Your task to perform on an android device: toggle notification dots Image 0: 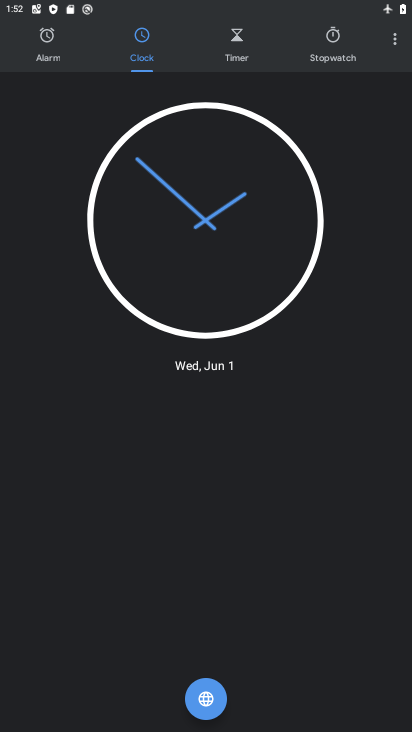
Step 0: press back button
Your task to perform on an android device: toggle notification dots Image 1: 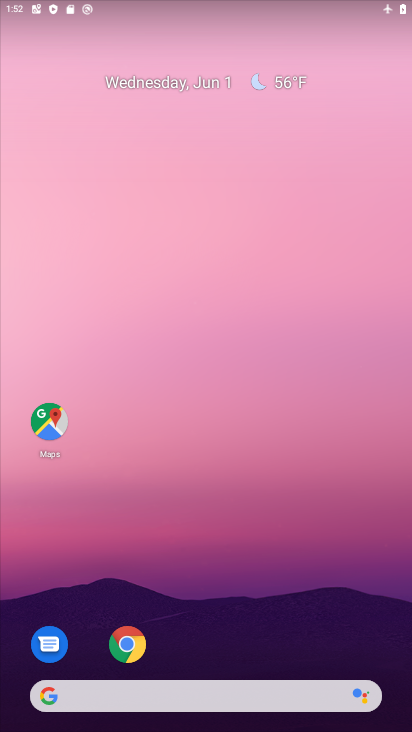
Step 1: drag from (250, 452) to (213, 38)
Your task to perform on an android device: toggle notification dots Image 2: 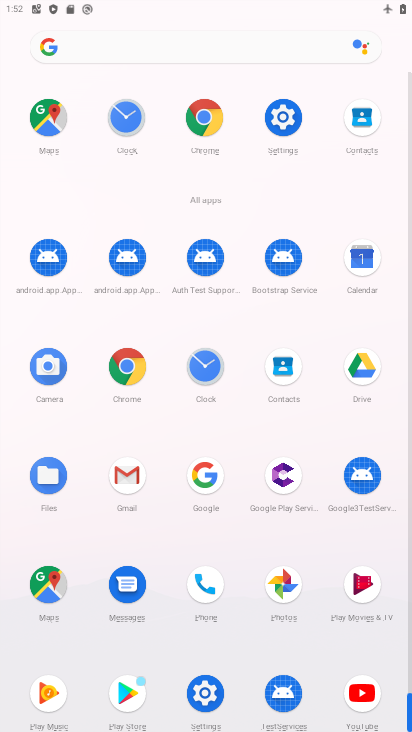
Step 2: drag from (0, 381) to (0, 181)
Your task to perform on an android device: toggle notification dots Image 3: 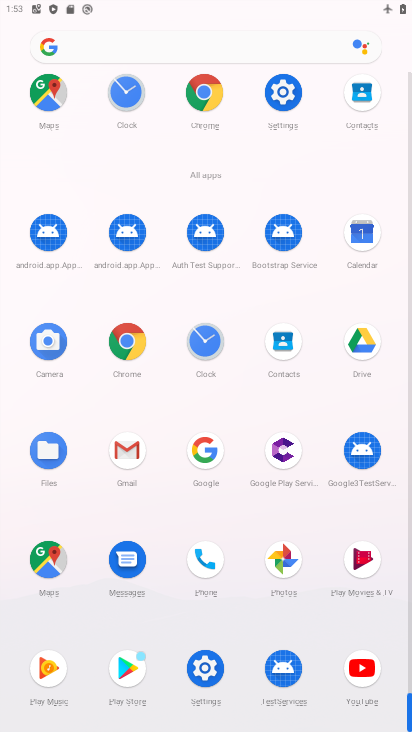
Step 3: drag from (16, 554) to (0, 226)
Your task to perform on an android device: toggle notification dots Image 4: 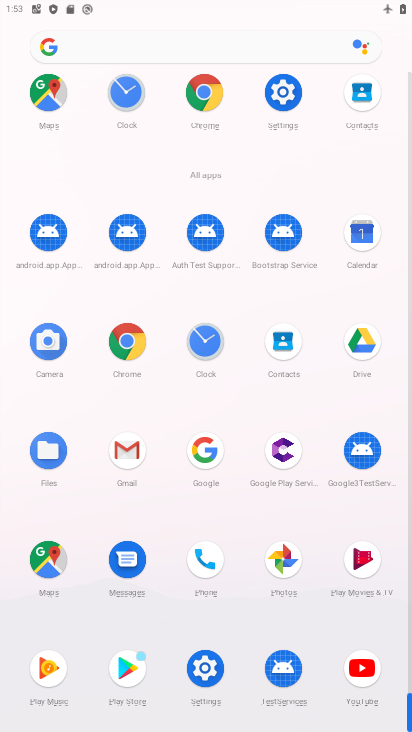
Step 4: drag from (12, 222) to (22, 166)
Your task to perform on an android device: toggle notification dots Image 5: 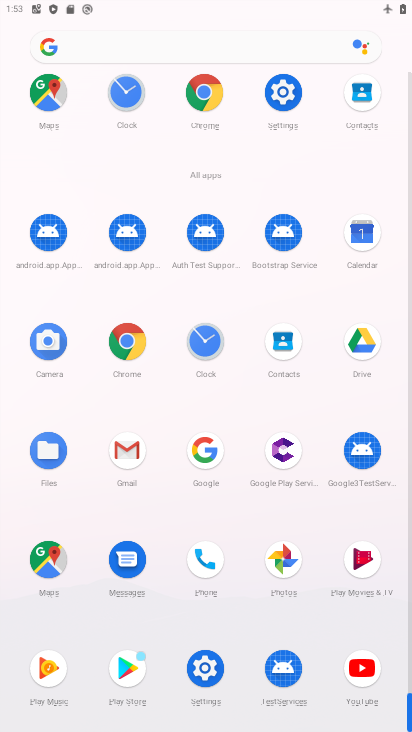
Step 5: click (202, 667)
Your task to perform on an android device: toggle notification dots Image 6: 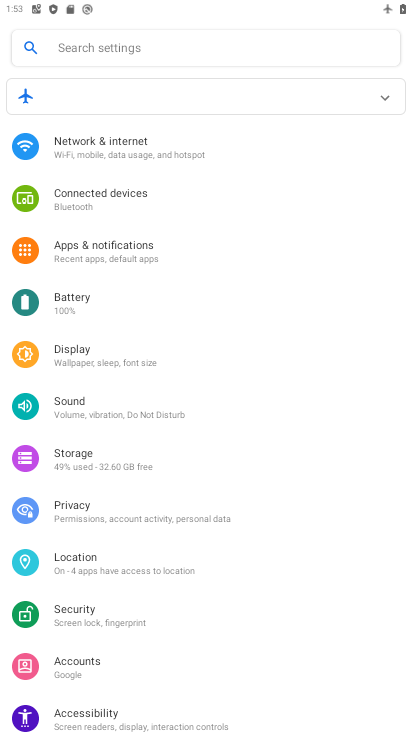
Step 6: click (153, 143)
Your task to perform on an android device: toggle notification dots Image 7: 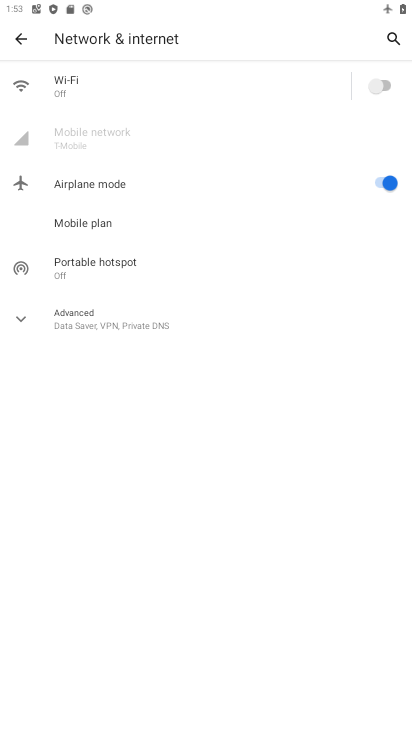
Step 7: click (53, 311)
Your task to perform on an android device: toggle notification dots Image 8: 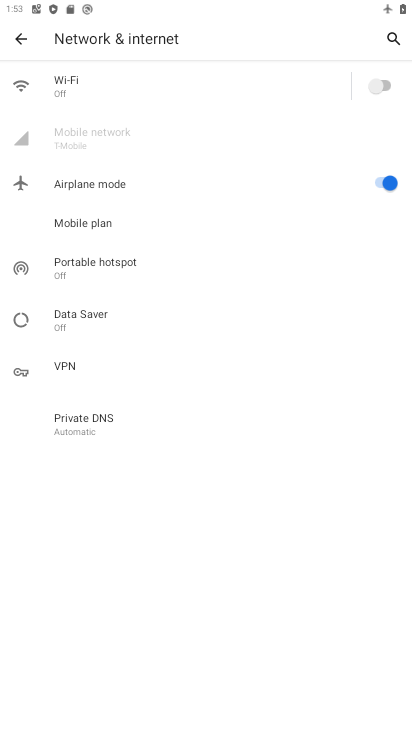
Step 8: click (33, 42)
Your task to perform on an android device: toggle notification dots Image 9: 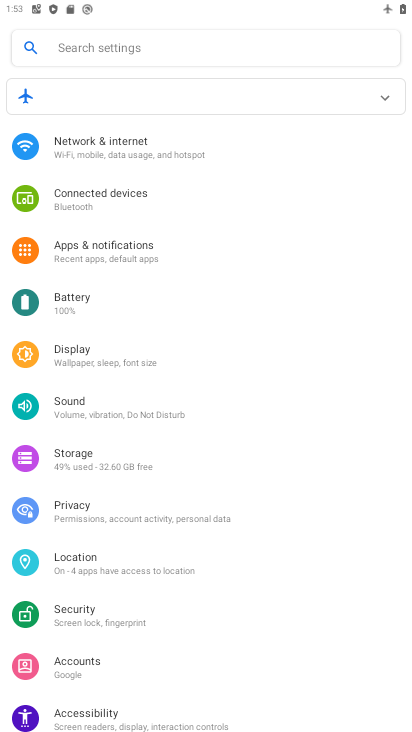
Step 9: click (134, 247)
Your task to perform on an android device: toggle notification dots Image 10: 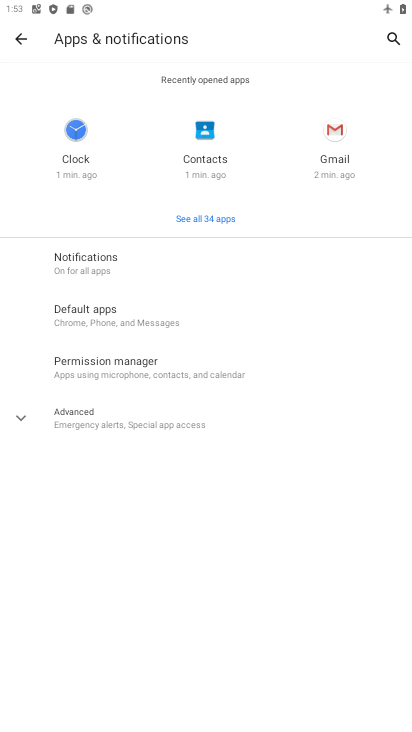
Step 10: click (44, 418)
Your task to perform on an android device: toggle notification dots Image 11: 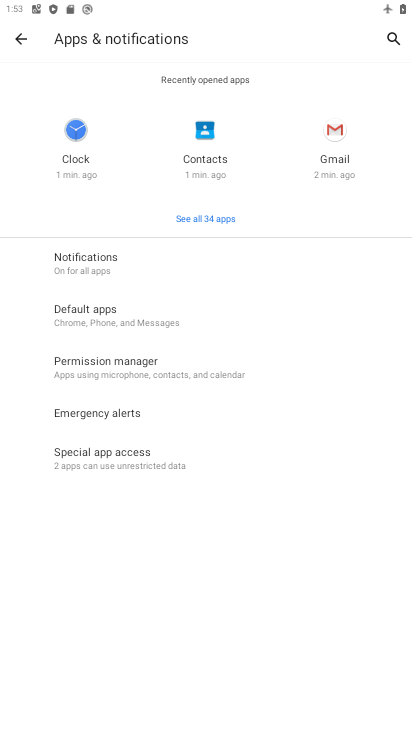
Step 11: click (32, 40)
Your task to perform on an android device: toggle notification dots Image 12: 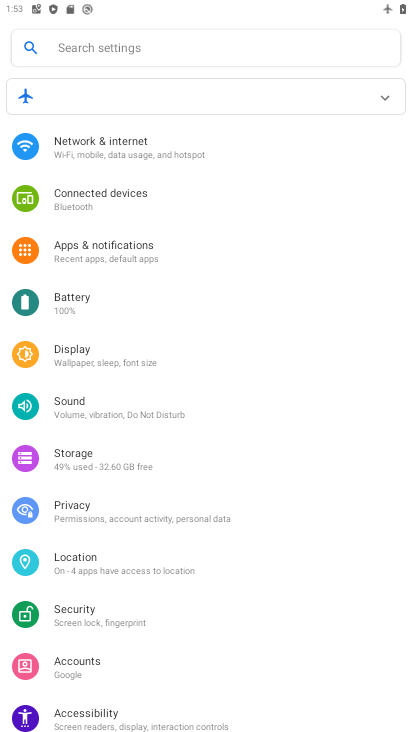
Step 12: click (150, 250)
Your task to perform on an android device: toggle notification dots Image 13: 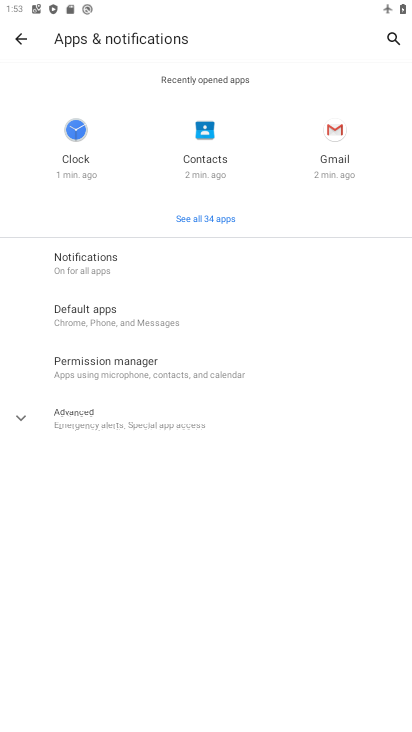
Step 13: click (119, 244)
Your task to perform on an android device: toggle notification dots Image 14: 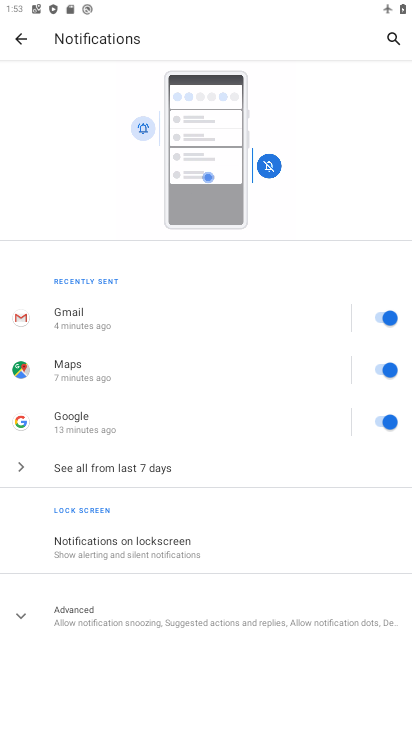
Step 14: drag from (253, 588) to (202, 255)
Your task to perform on an android device: toggle notification dots Image 15: 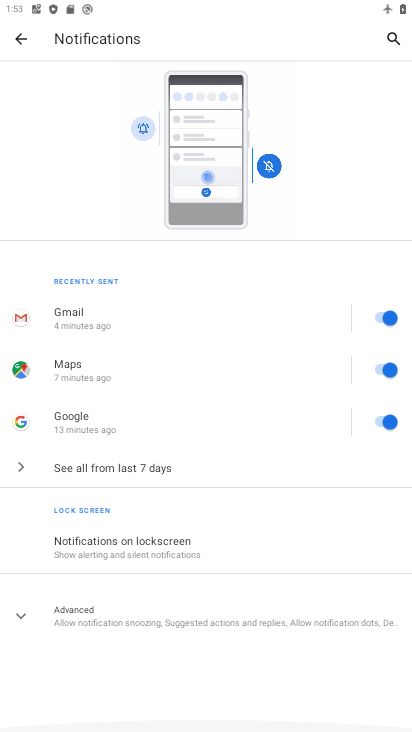
Step 15: click (47, 617)
Your task to perform on an android device: toggle notification dots Image 16: 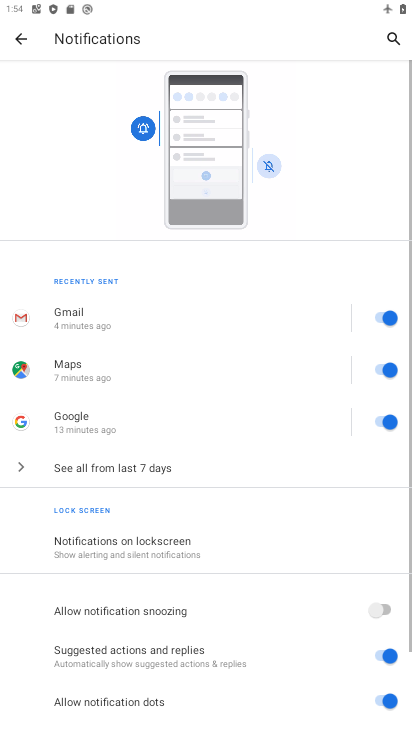
Step 16: drag from (237, 577) to (247, 264)
Your task to perform on an android device: toggle notification dots Image 17: 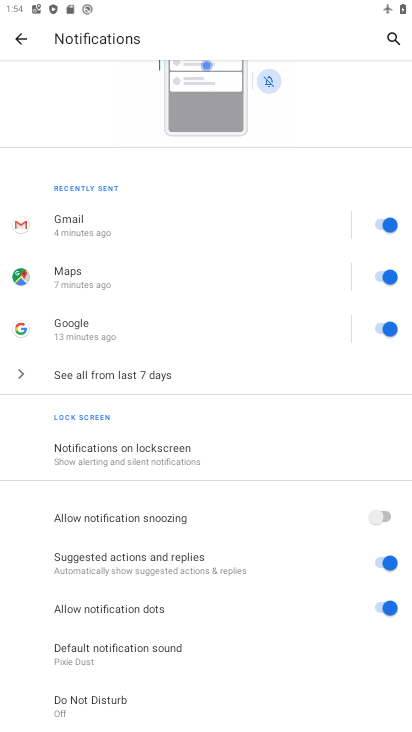
Step 17: click (391, 608)
Your task to perform on an android device: toggle notification dots Image 18: 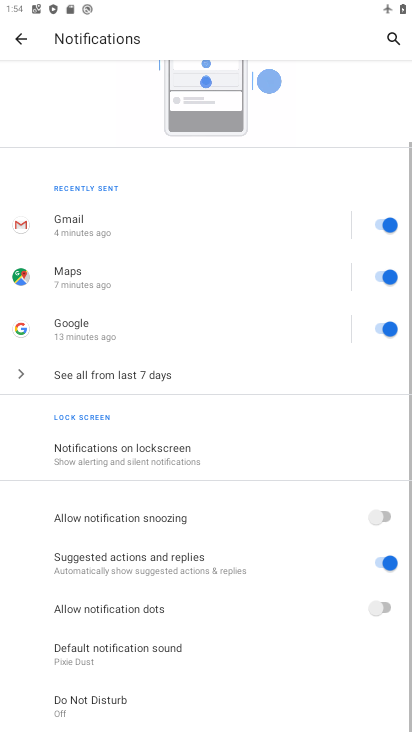
Step 18: task complete